Your task to perform on an android device: change alarm snooze length Image 0: 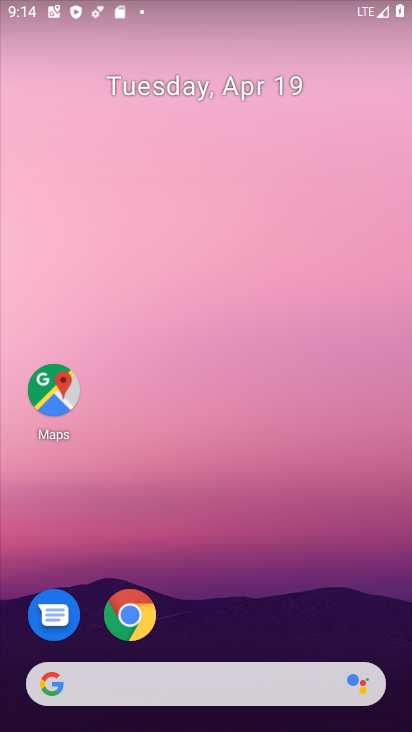
Step 0: drag from (225, 627) to (191, 124)
Your task to perform on an android device: change alarm snooze length Image 1: 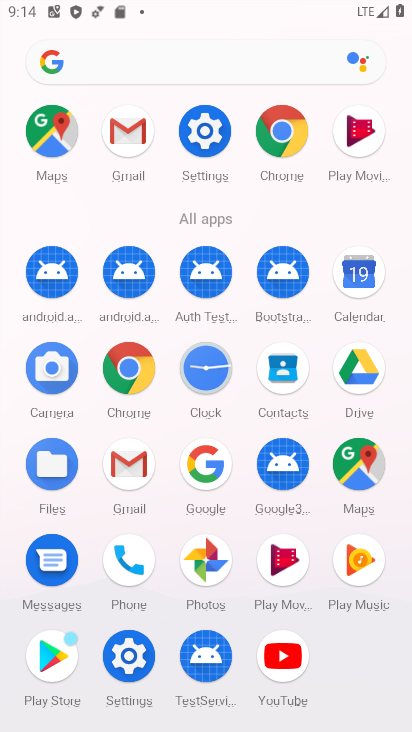
Step 1: click (199, 357)
Your task to perform on an android device: change alarm snooze length Image 2: 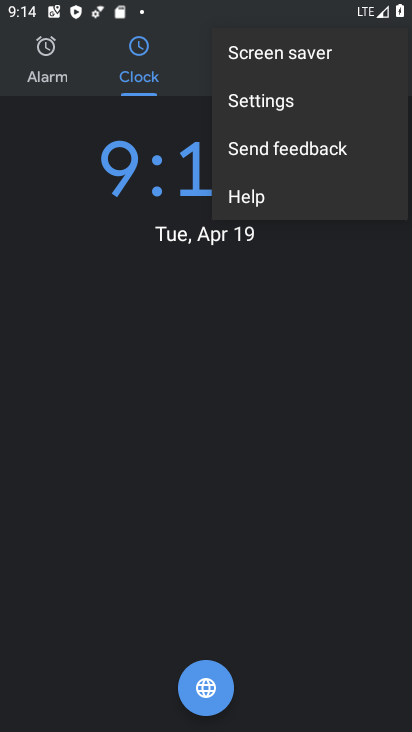
Step 2: click (263, 101)
Your task to perform on an android device: change alarm snooze length Image 3: 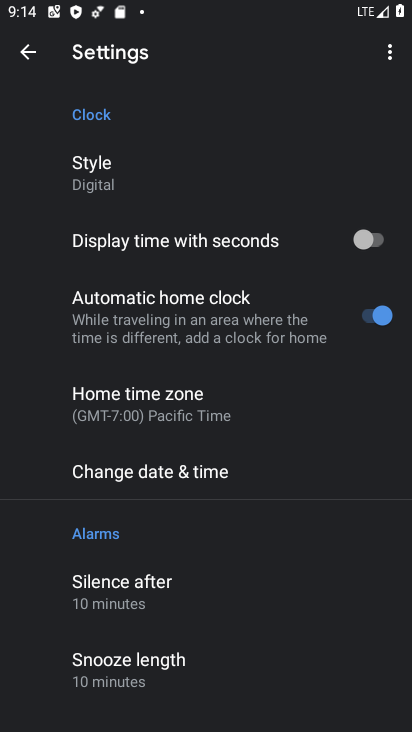
Step 3: click (74, 665)
Your task to perform on an android device: change alarm snooze length Image 4: 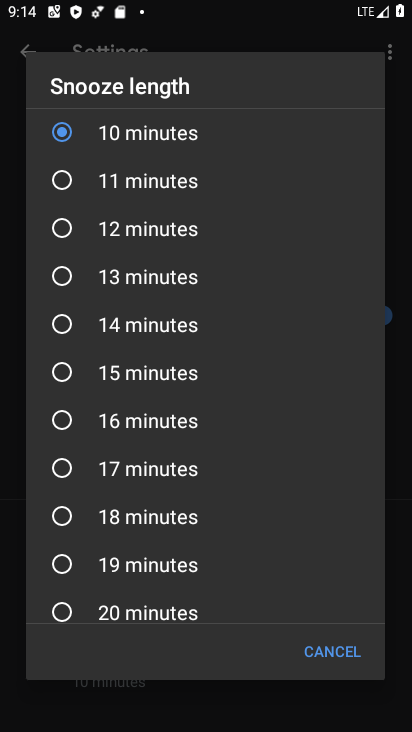
Step 4: click (64, 618)
Your task to perform on an android device: change alarm snooze length Image 5: 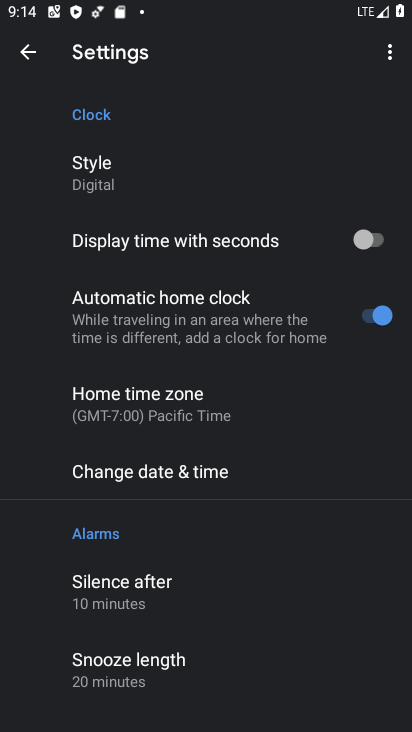
Step 5: click (182, 656)
Your task to perform on an android device: change alarm snooze length Image 6: 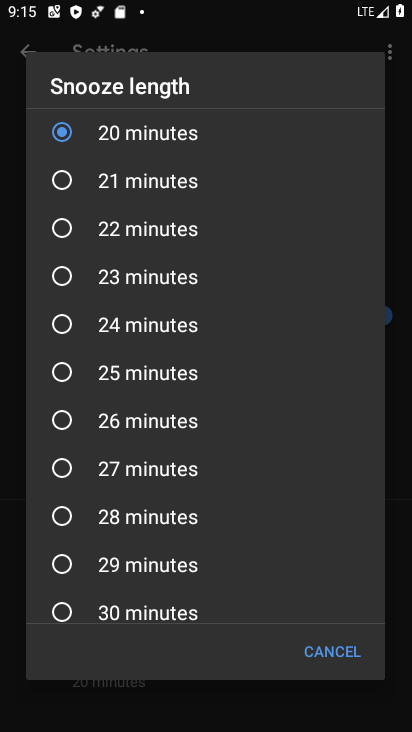
Step 6: task complete